Your task to perform on an android device: check battery use Image 0: 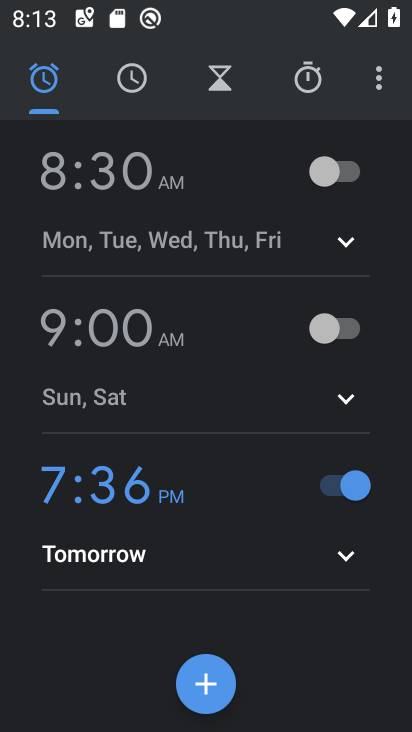
Step 0: press home button
Your task to perform on an android device: check battery use Image 1: 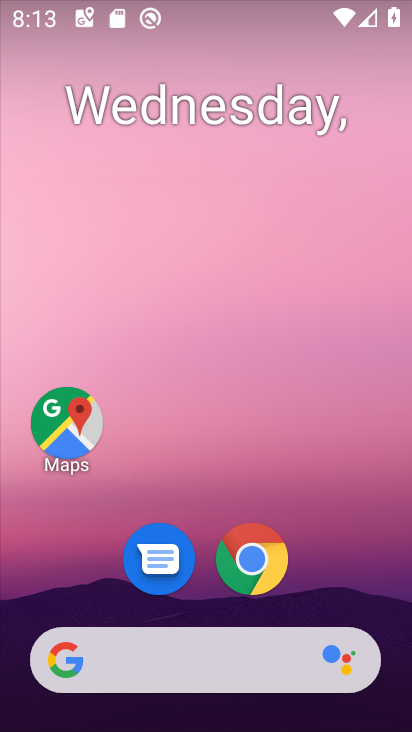
Step 1: drag from (365, 560) to (336, 162)
Your task to perform on an android device: check battery use Image 2: 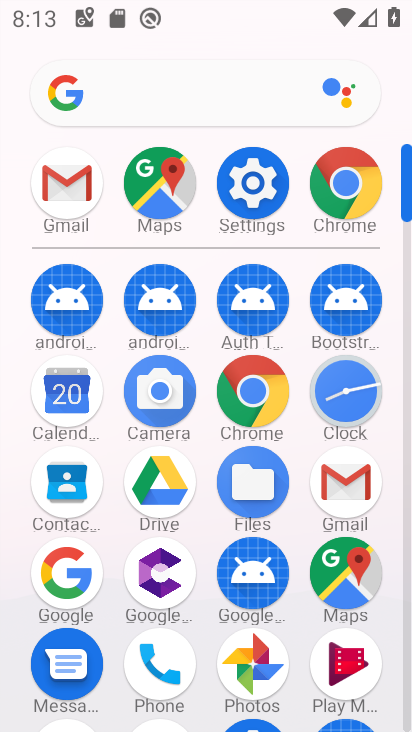
Step 2: click (249, 199)
Your task to perform on an android device: check battery use Image 3: 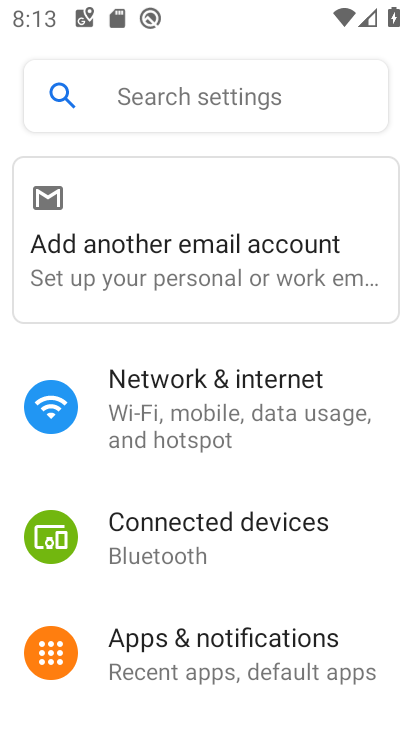
Step 3: drag from (351, 592) to (346, 242)
Your task to perform on an android device: check battery use Image 4: 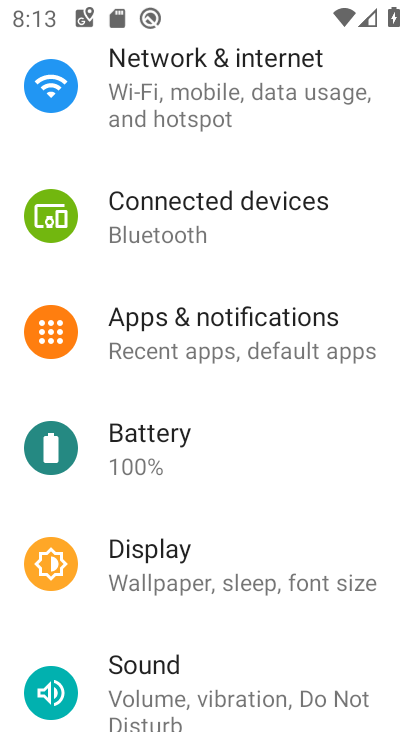
Step 4: click (133, 447)
Your task to perform on an android device: check battery use Image 5: 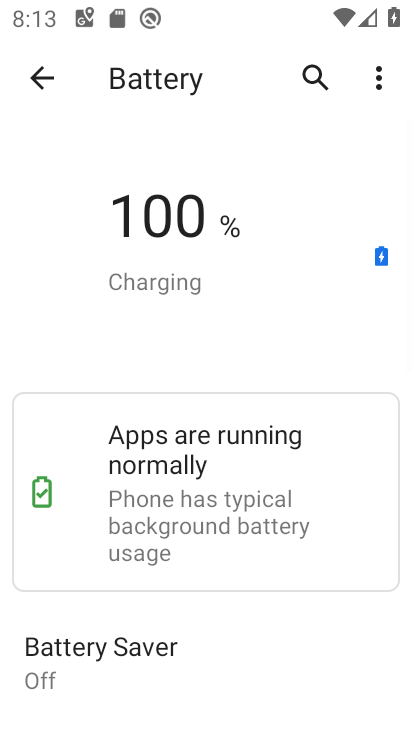
Step 5: click (383, 66)
Your task to perform on an android device: check battery use Image 6: 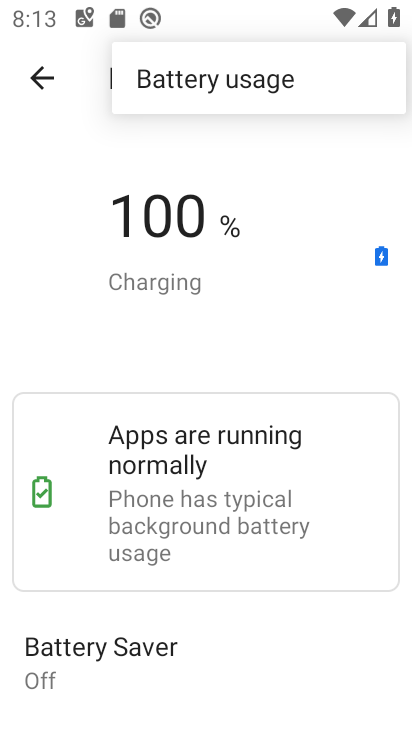
Step 6: click (239, 82)
Your task to perform on an android device: check battery use Image 7: 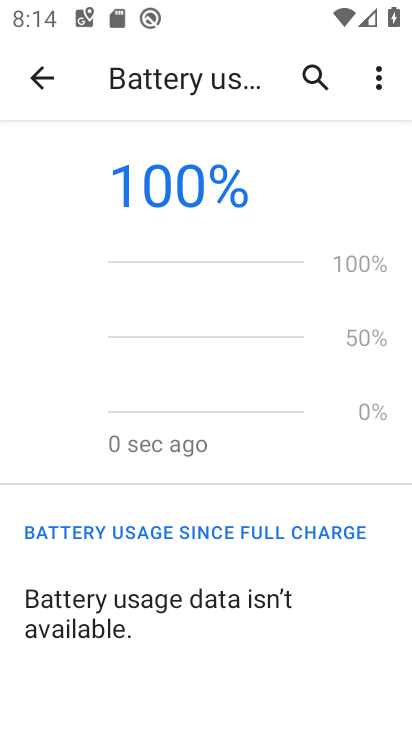
Step 7: task complete